Your task to perform on an android device: Open privacy settings Image 0: 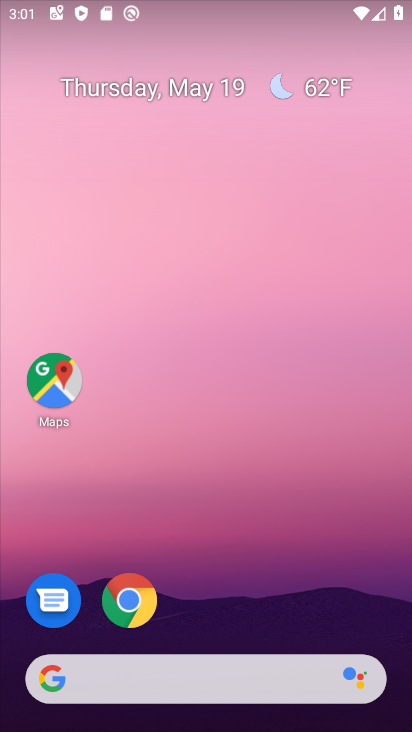
Step 0: drag from (22, 623) to (224, 183)
Your task to perform on an android device: Open privacy settings Image 1: 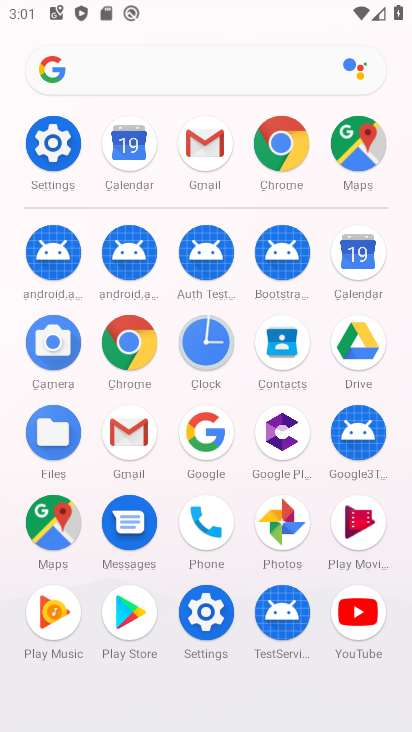
Step 1: click (58, 133)
Your task to perform on an android device: Open privacy settings Image 2: 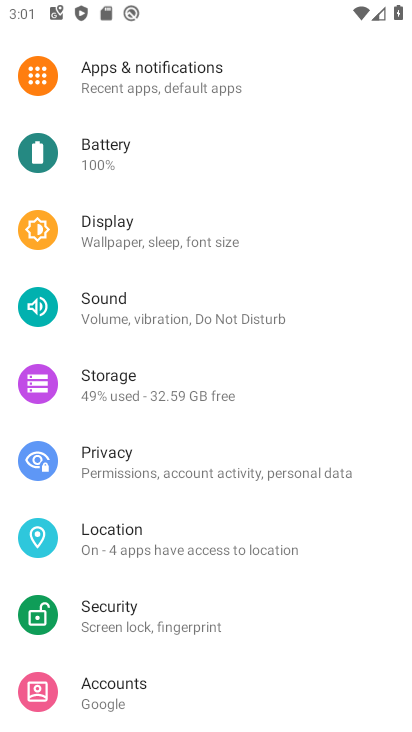
Step 2: click (94, 464)
Your task to perform on an android device: Open privacy settings Image 3: 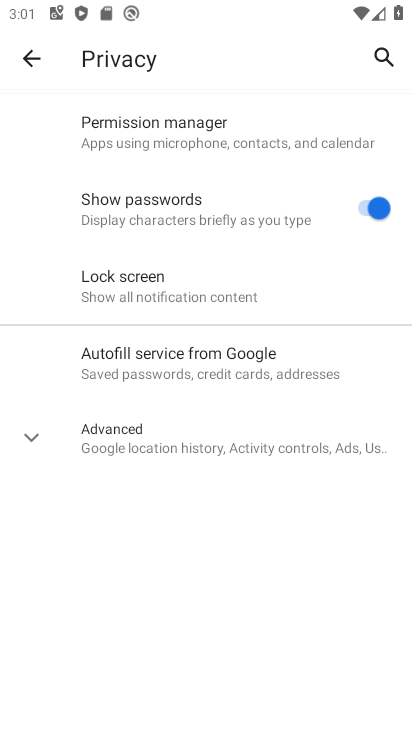
Step 3: task complete